Your task to perform on an android device: install app "McDonald's" Image 0: 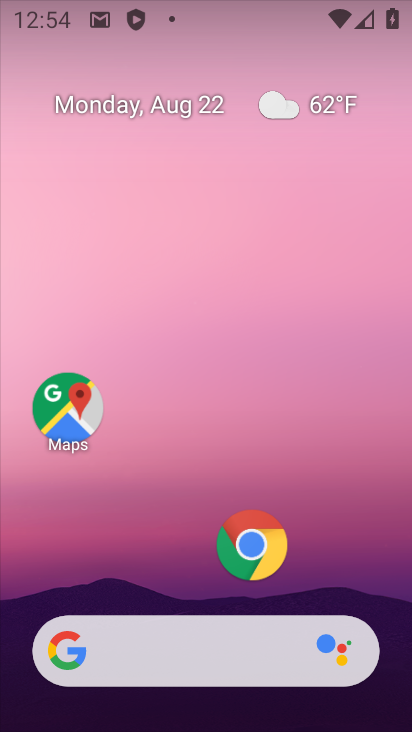
Step 0: drag from (206, 479) to (258, 42)
Your task to perform on an android device: install app "McDonald's" Image 1: 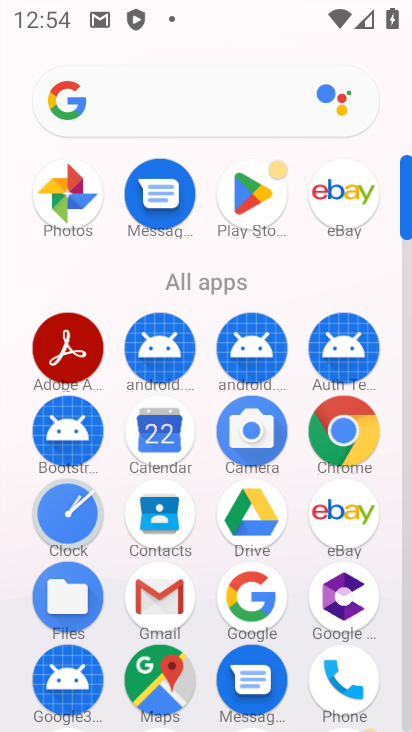
Step 1: click (259, 199)
Your task to perform on an android device: install app "McDonald's" Image 2: 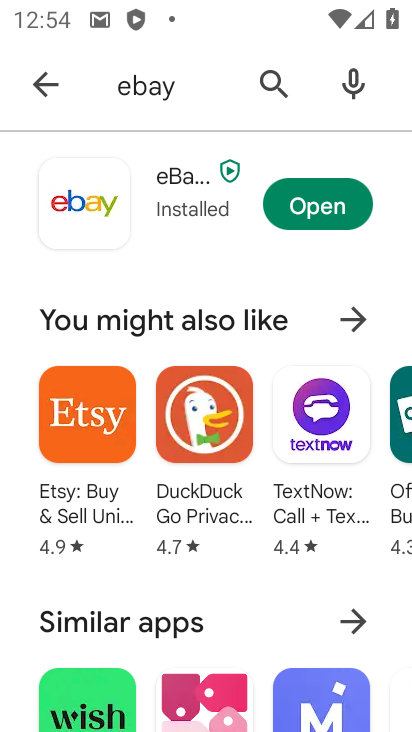
Step 2: click (281, 78)
Your task to perform on an android device: install app "McDonald's" Image 3: 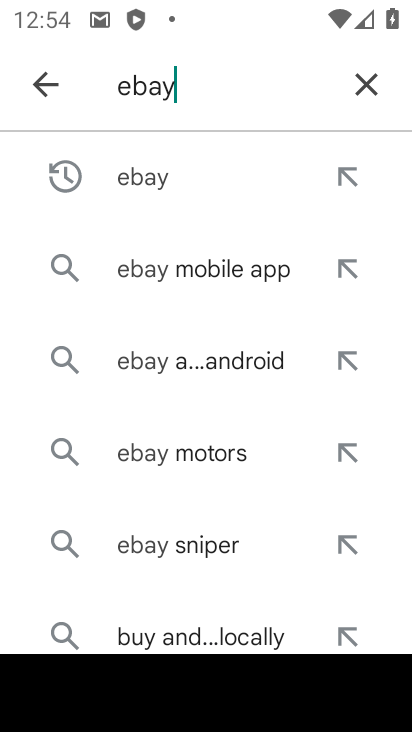
Step 3: click (370, 77)
Your task to perform on an android device: install app "McDonald's" Image 4: 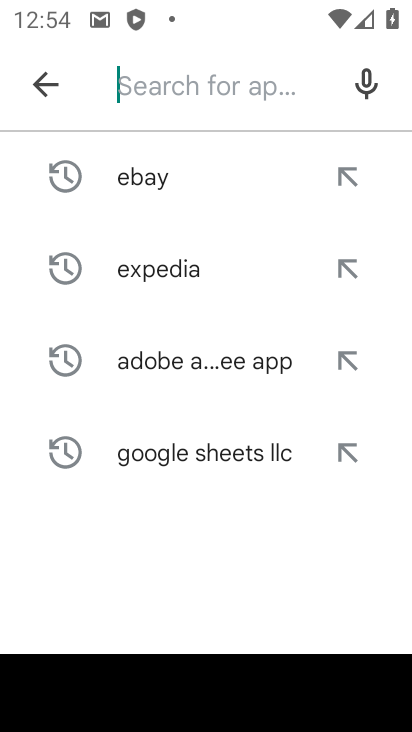
Step 4: click (158, 87)
Your task to perform on an android device: install app "McDonald's" Image 5: 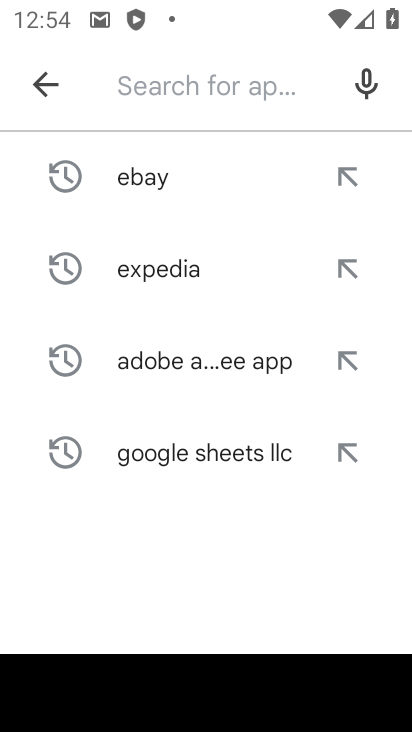
Step 5: type "mcdonalds"
Your task to perform on an android device: install app "McDonald's" Image 6: 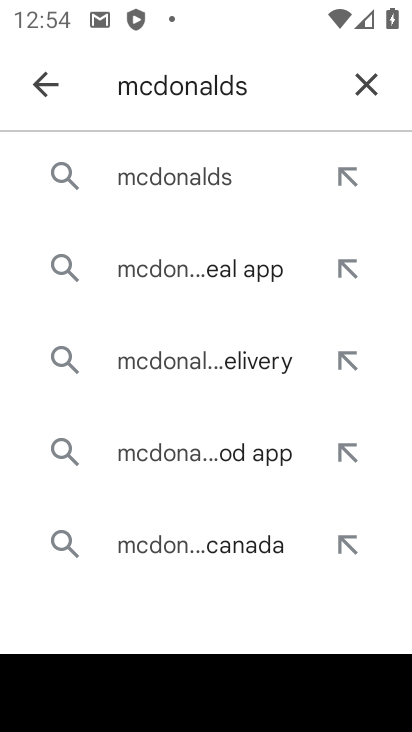
Step 6: click (131, 204)
Your task to perform on an android device: install app "McDonald's" Image 7: 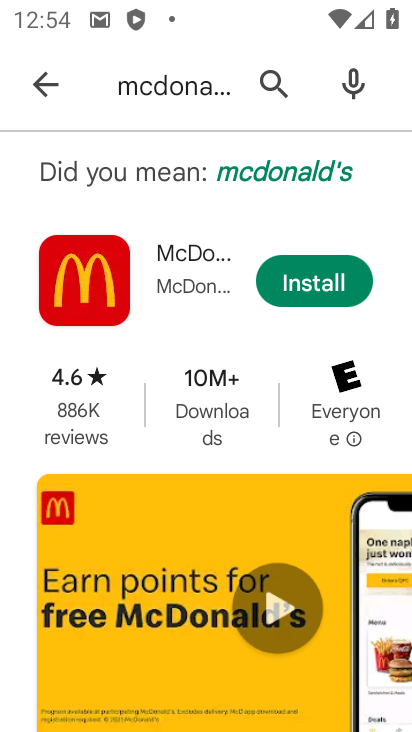
Step 7: click (319, 277)
Your task to perform on an android device: install app "McDonald's" Image 8: 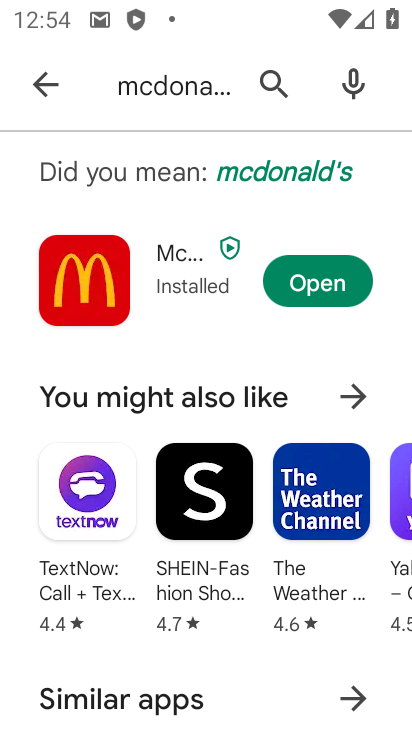
Step 8: task complete